Your task to perform on an android device: Open Yahoo.com Image 0: 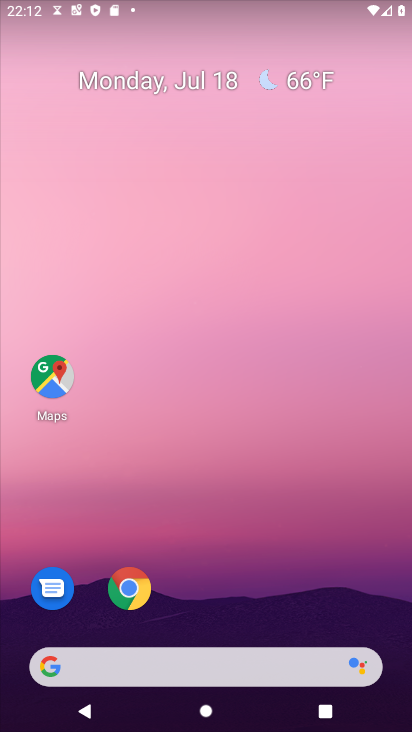
Step 0: click (133, 588)
Your task to perform on an android device: Open Yahoo.com Image 1: 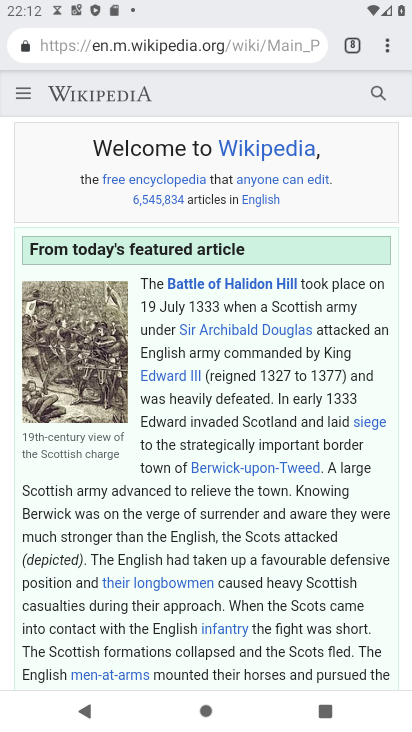
Step 1: drag from (386, 41) to (292, 87)
Your task to perform on an android device: Open Yahoo.com Image 2: 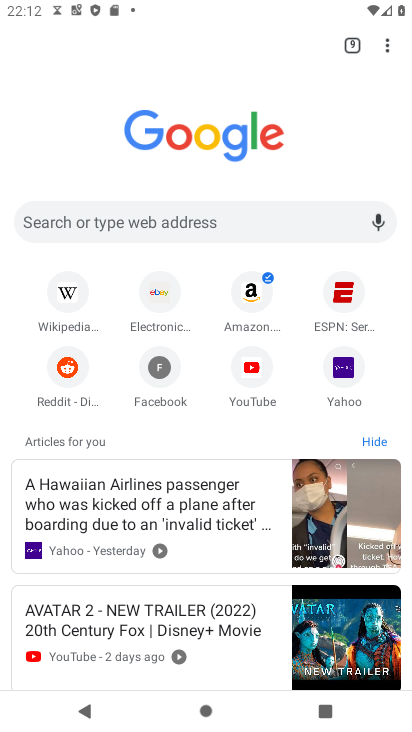
Step 2: click (342, 374)
Your task to perform on an android device: Open Yahoo.com Image 3: 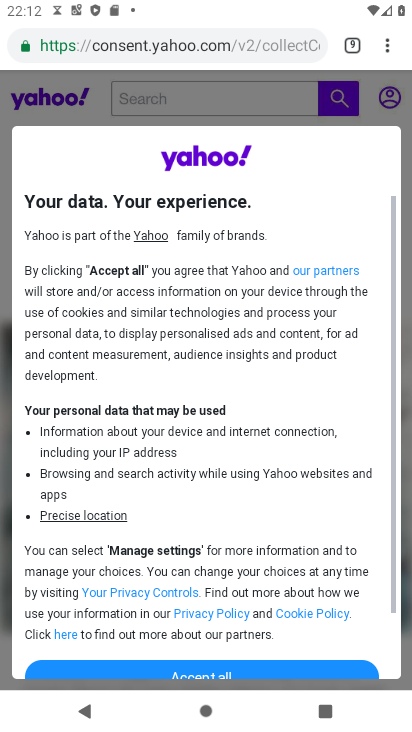
Step 3: drag from (275, 608) to (371, 124)
Your task to perform on an android device: Open Yahoo.com Image 4: 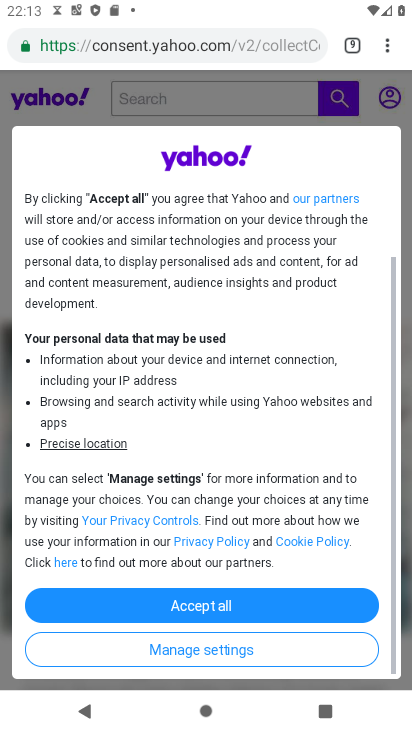
Step 4: click (214, 605)
Your task to perform on an android device: Open Yahoo.com Image 5: 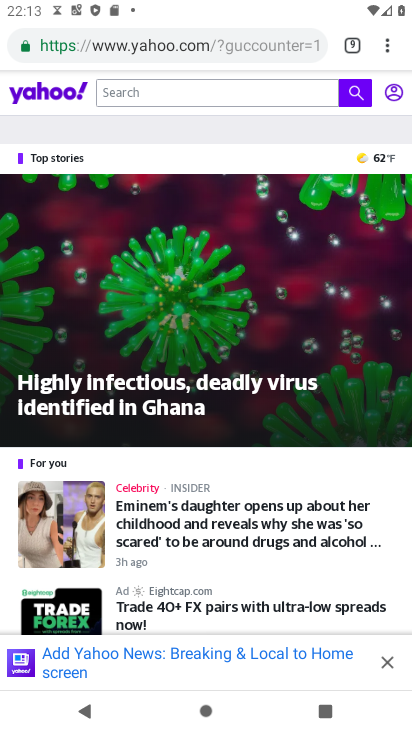
Step 5: task complete